Your task to perform on an android device: Go to Android settings Image 0: 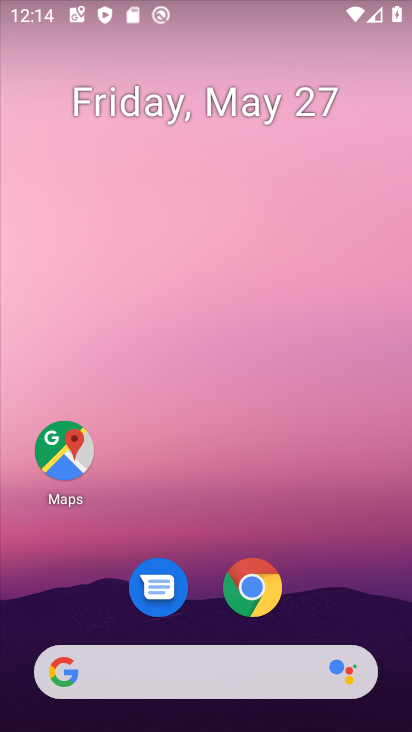
Step 0: drag from (135, 730) to (198, 52)
Your task to perform on an android device: Go to Android settings Image 1: 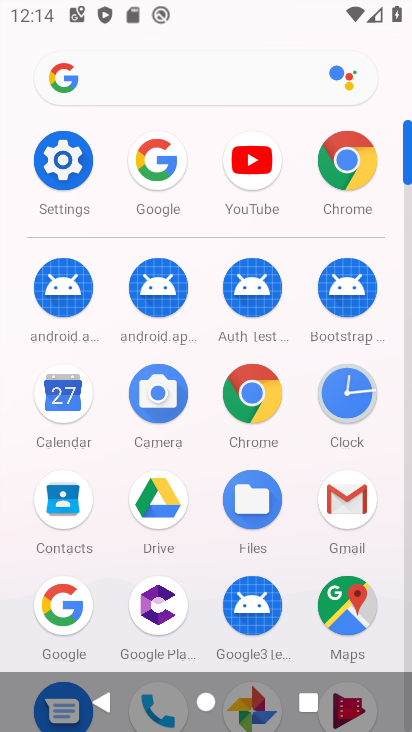
Step 1: click (75, 180)
Your task to perform on an android device: Go to Android settings Image 2: 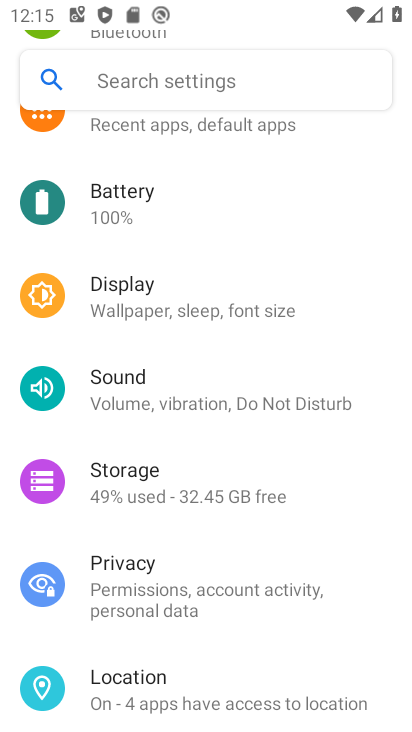
Step 2: task complete